Your task to perform on an android device: set the timer Image 0: 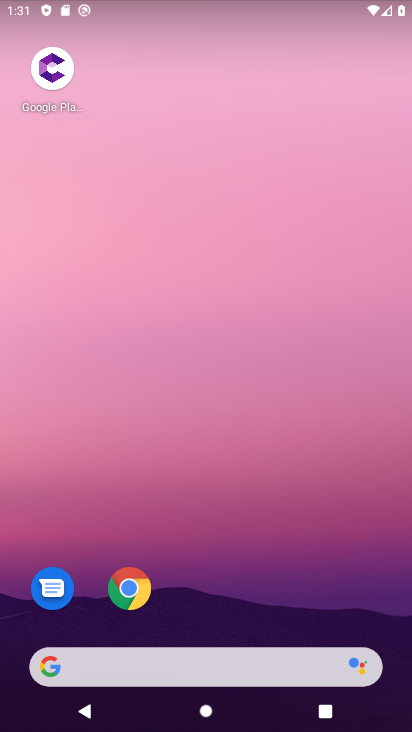
Step 0: press home button
Your task to perform on an android device: set the timer Image 1: 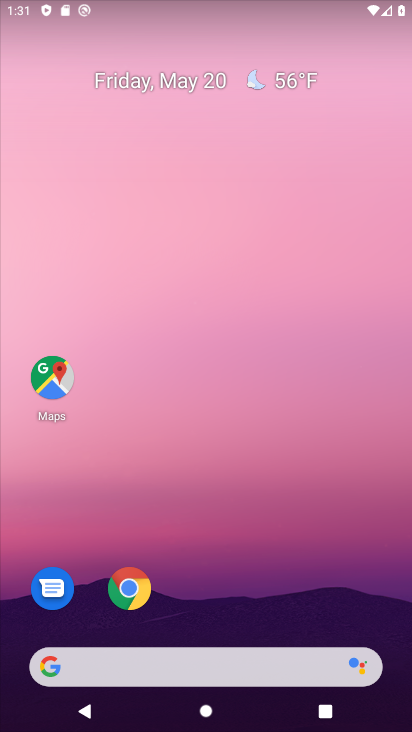
Step 1: drag from (64, 418) to (251, 128)
Your task to perform on an android device: set the timer Image 2: 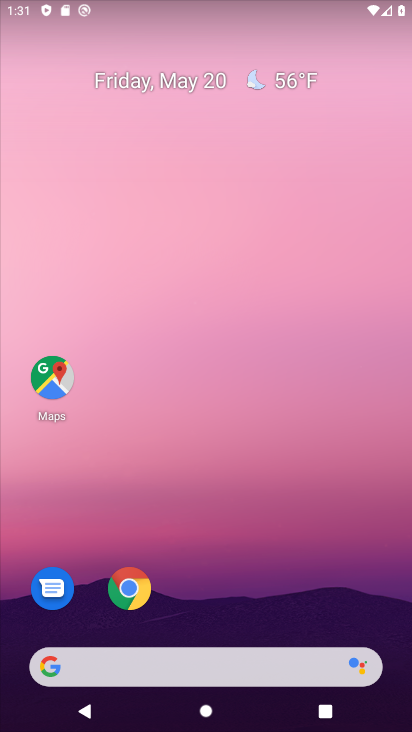
Step 2: drag from (46, 558) to (247, 223)
Your task to perform on an android device: set the timer Image 3: 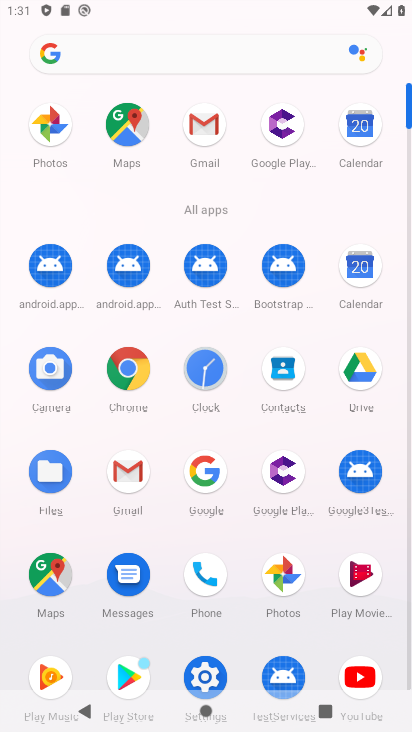
Step 3: click (210, 368)
Your task to perform on an android device: set the timer Image 4: 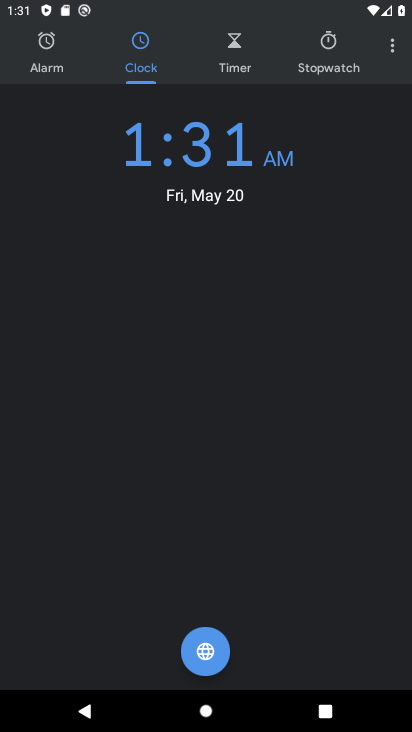
Step 4: click (234, 55)
Your task to perform on an android device: set the timer Image 5: 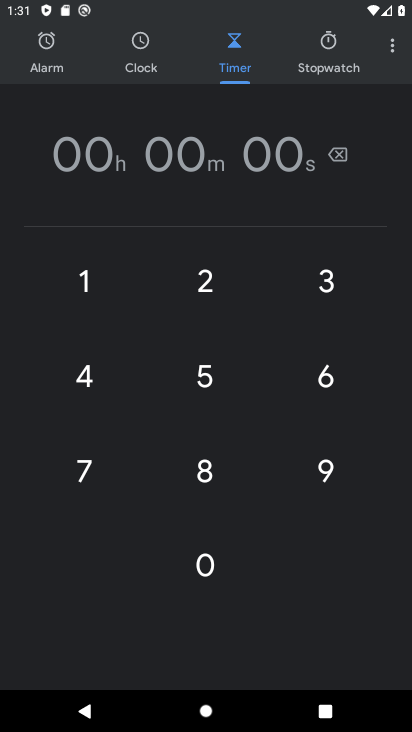
Step 5: click (81, 289)
Your task to perform on an android device: set the timer Image 6: 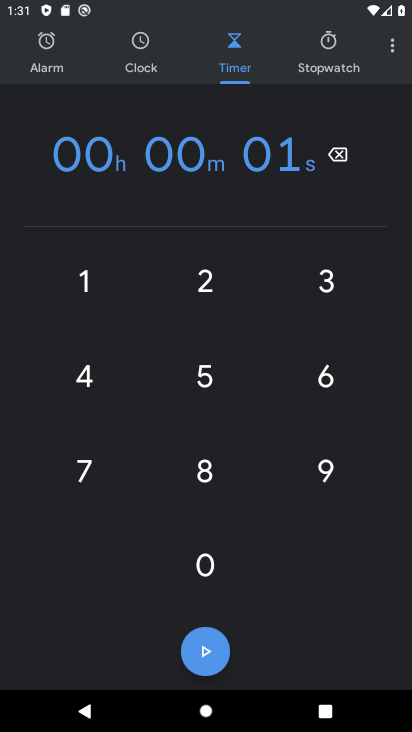
Step 6: click (195, 544)
Your task to perform on an android device: set the timer Image 7: 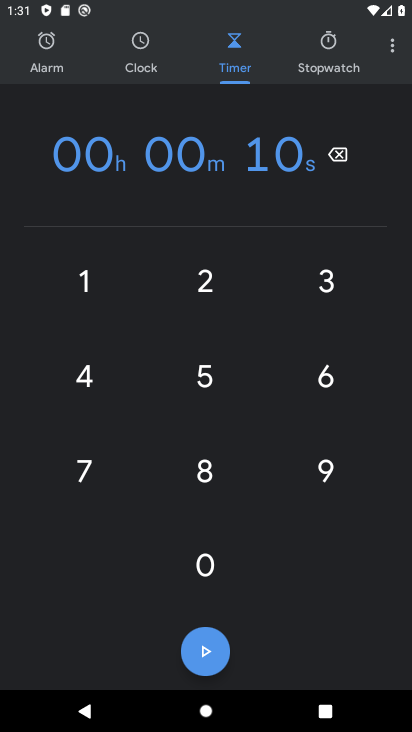
Step 7: click (199, 554)
Your task to perform on an android device: set the timer Image 8: 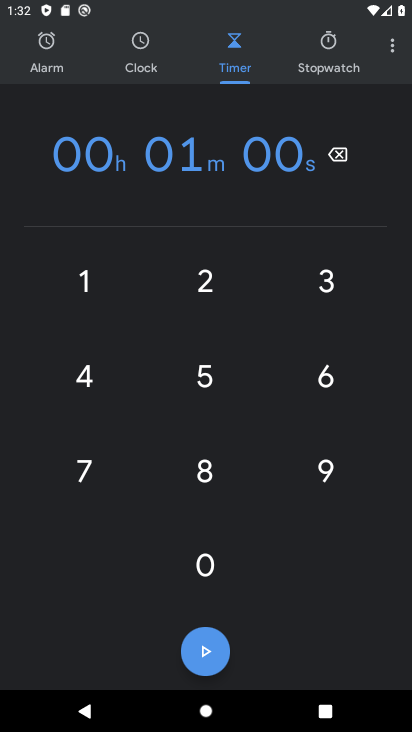
Step 8: click (199, 554)
Your task to perform on an android device: set the timer Image 9: 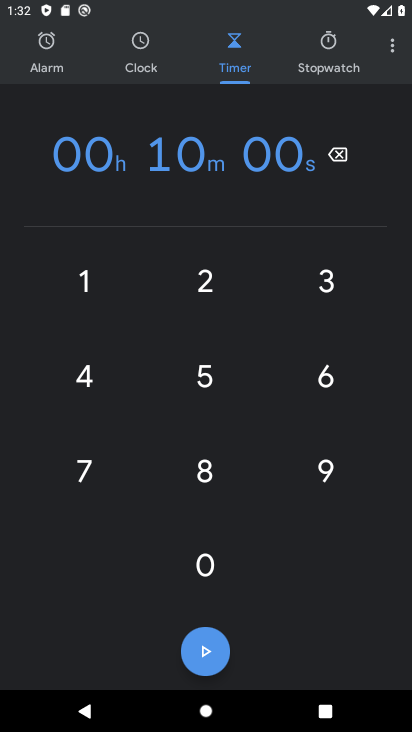
Step 9: click (199, 554)
Your task to perform on an android device: set the timer Image 10: 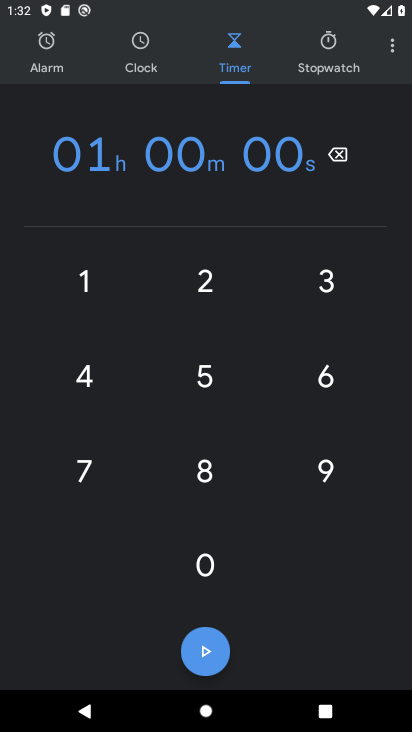
Step 10: click (198, 657)
Your task to perform on an android device: set the timer Image 11: 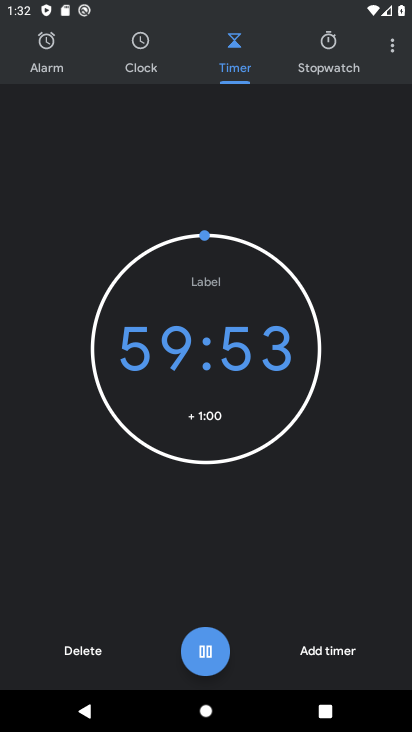
Step 11: task complete